Your task to perform on an android device: What is the recent news? Image 0: 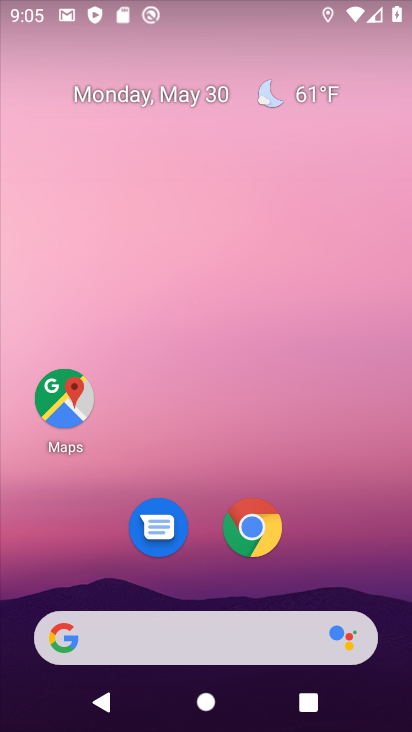
Step 0: click (151, 642)
Your task to perform on an android device: What is the recent news? Image 1: 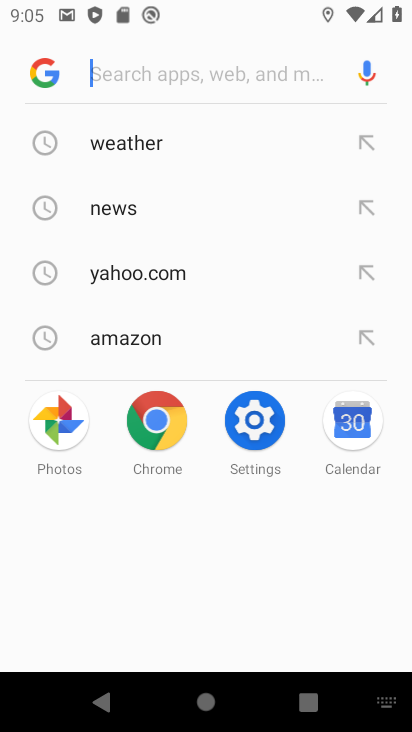
Step 1: type "what is the recent news"
Your task to perform on an android device: What is the recent news? Image 2: 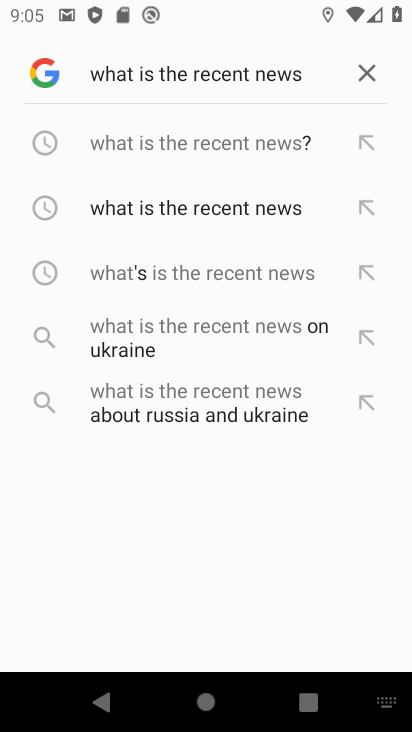
Step 2: click (199, 141)
Your task to perform on an android device: What is the recent news? Image 3: 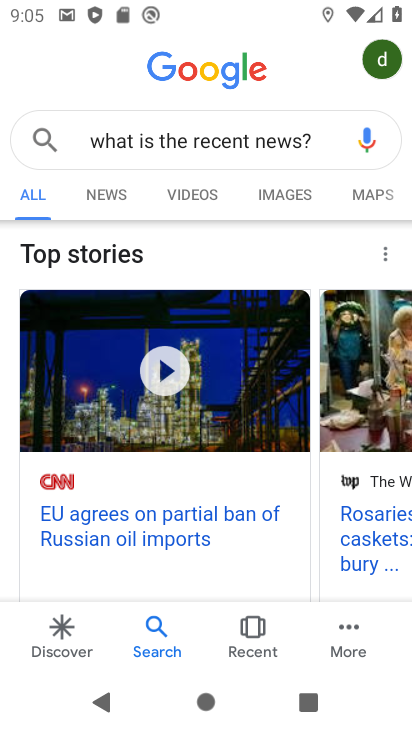
Step 3: click (118, 193)
Your task to perform on an android device: What is the recent news? Image 4: 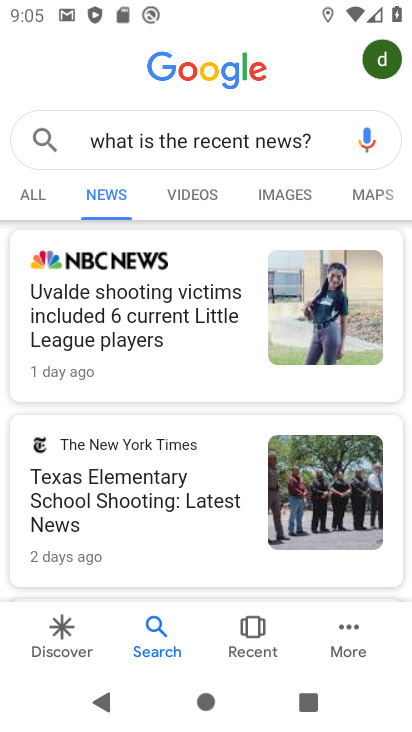
Step 4: task complete